Your task to perform on an android device: What is the news today? Image 0: 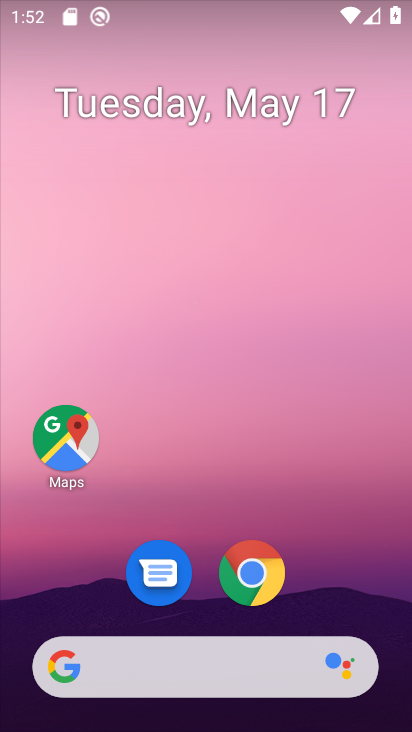
Step 0: click (209, 645)
Your task to perform on an android device: What is the news today? Image 1: 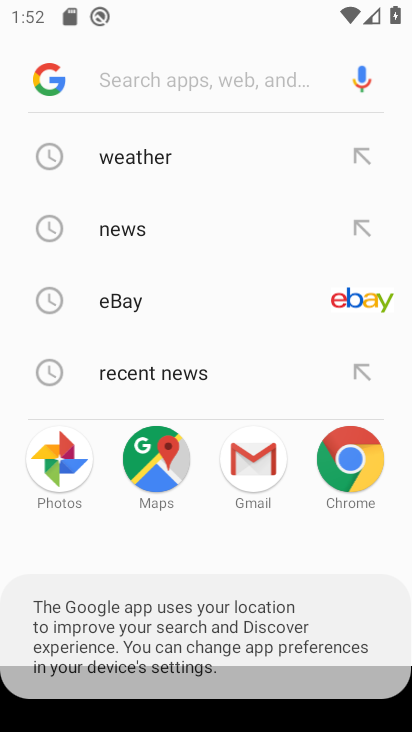
Step 1: click (105, 212)
Your task to perform on an android device: What is the news today? Image 2: 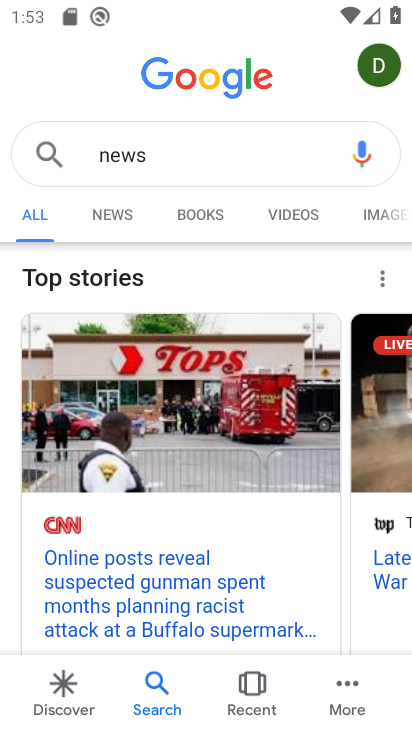
Step 2: click (122, 220)
Your task to perform on an android device: What is the news today? Image 3: 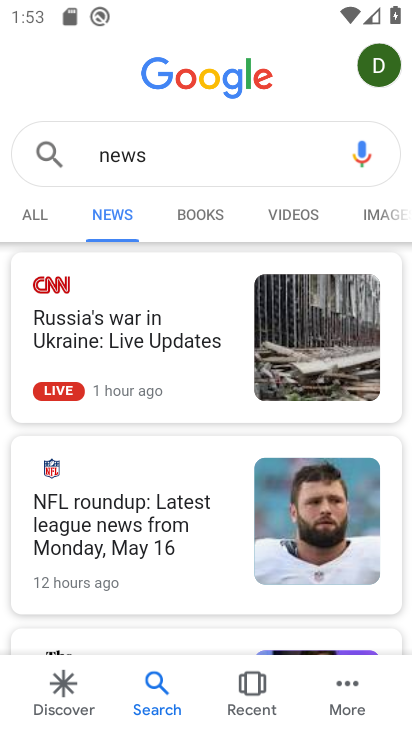
Step 3: task complete